Your task to perform on an android device: manage bookmarks in the chrome app Image 0: 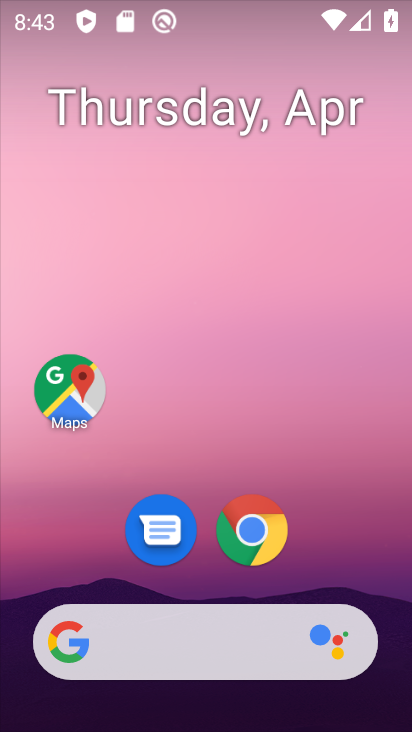
Step 0: drag from (360, 560) to (267, 137)
Your task to perform on an android device: manage bookmarks in the chrome app Image 1: 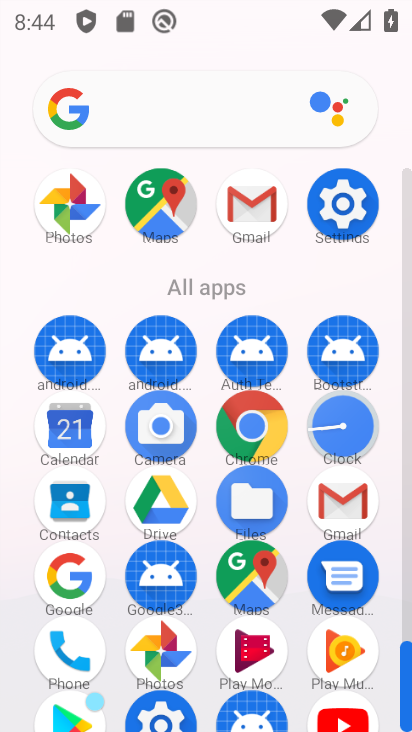
Step 1: click (262, 423)
Your task to perform on an android device: manage bookmarks in the chrome app Image 2: 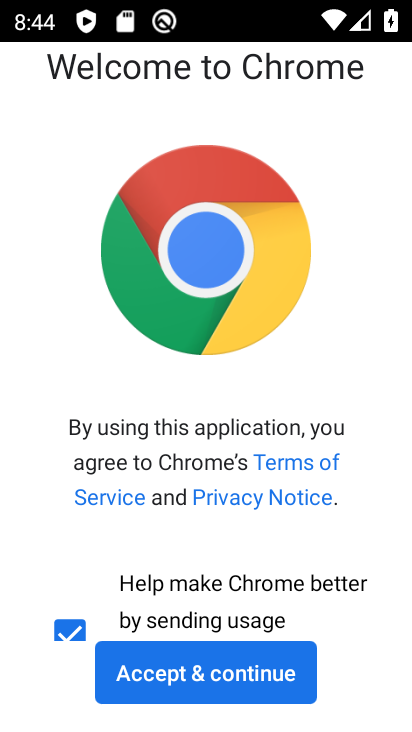
Step 2: click (243, 671)
Your task to perform on an android device: manage bookmarks in the chrome app Image 3: 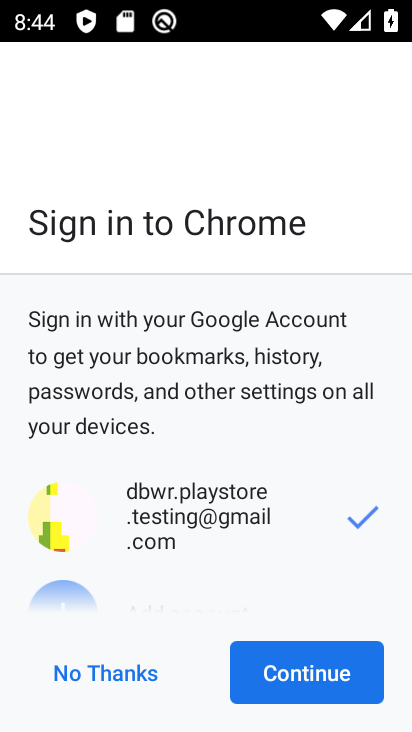
Step 3: click (260, 679)
Your task to perform on an android device: manage bookmarks in the chrome app Image 4: 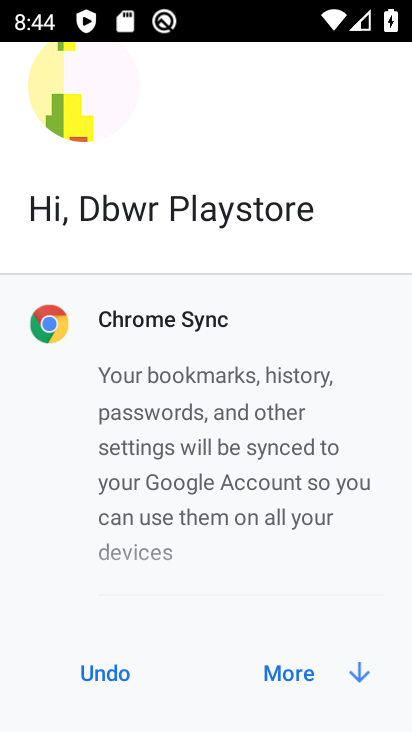
Step 4: click (297, 677)
Your task to perform on an android device: manage bookmarks in the chrome app Image 5: 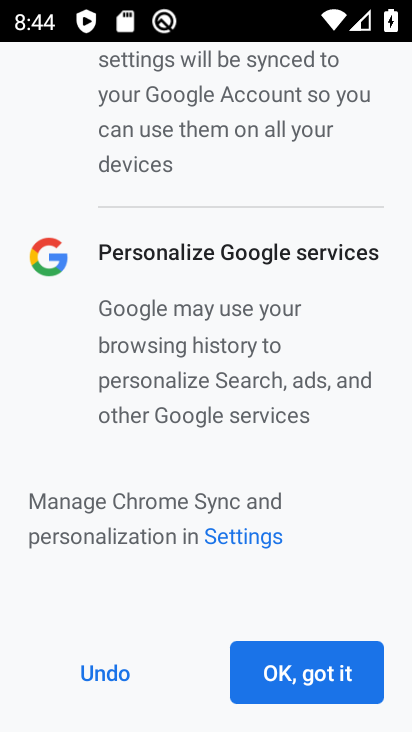
Step 5: click (297, 677)
Your task to perform on an android device: manage bookmarks in the chrome app Image 6: 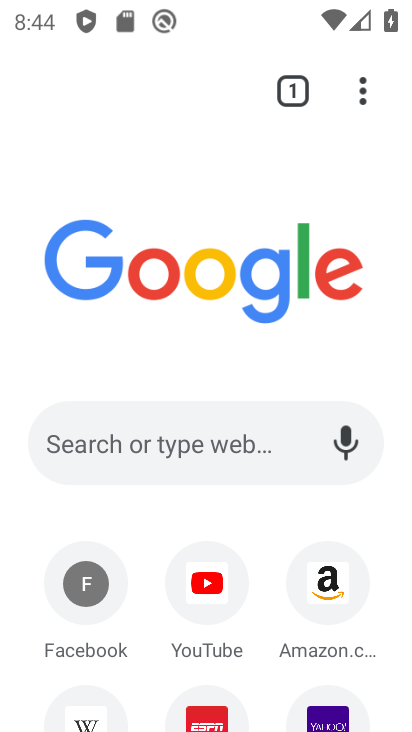
Step 6: click (361, 88)
Your task to perform on an android device: manage bookmarks in the chrome app Image 7: 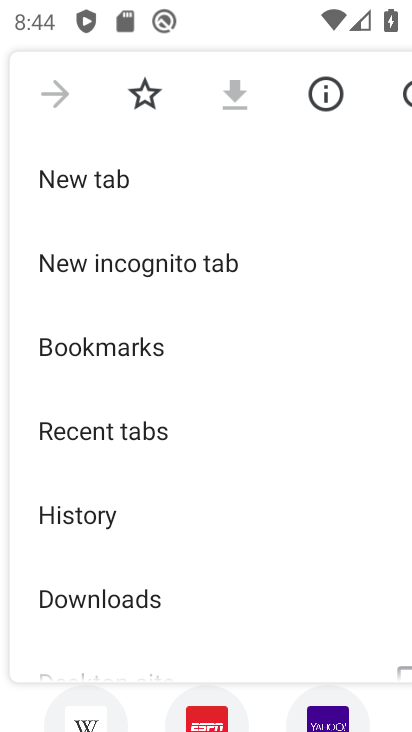
Step 7: click (187, 370)
Your task to perform on an android device: manage bookmarks in the chrome app Image 8: 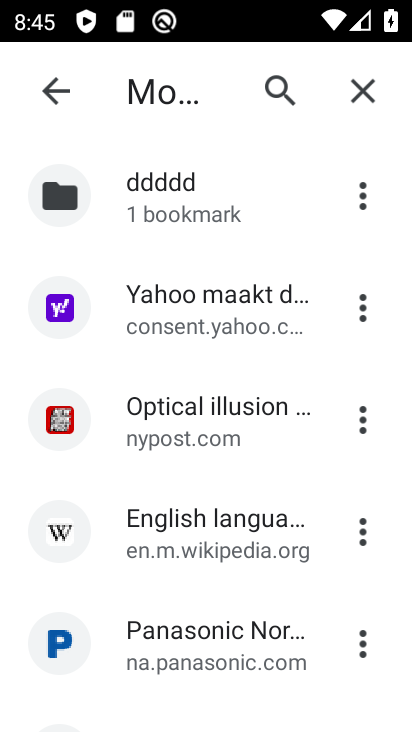
Step 8: task complete